Your task to perform on an android device: Show the shopping cart on costco. Search for "apple airpods pro" on costco, select the first entry, add it to the cart, then select checkout. Image 0: 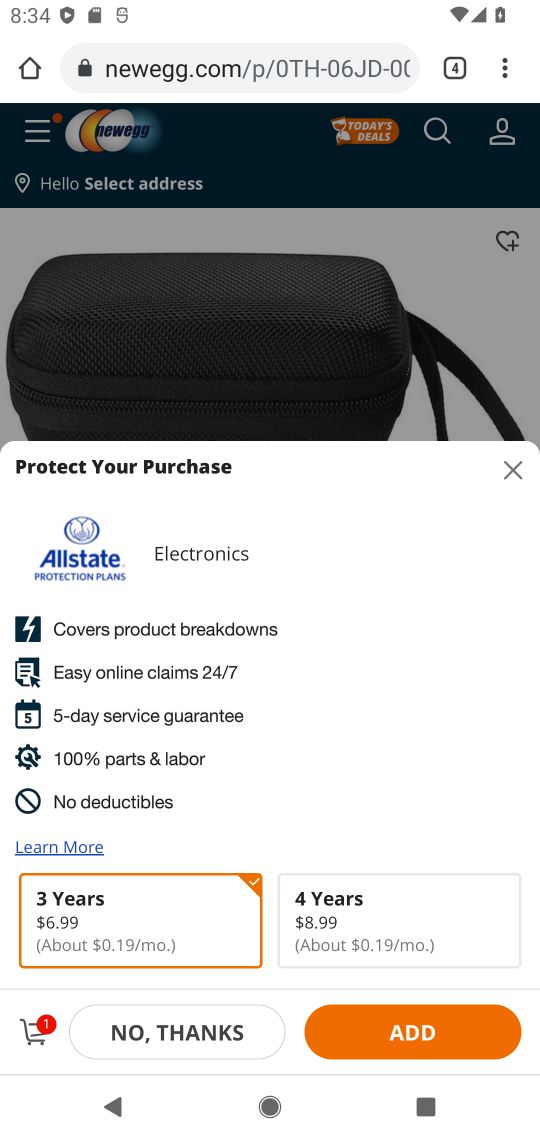
Step 0: press home button
Your task to perform on an android device: Show the shopping cart on costco. Search for "apple airpods pro" on costco, select the first entry, add it to the cart, then select checkout. Image 1: 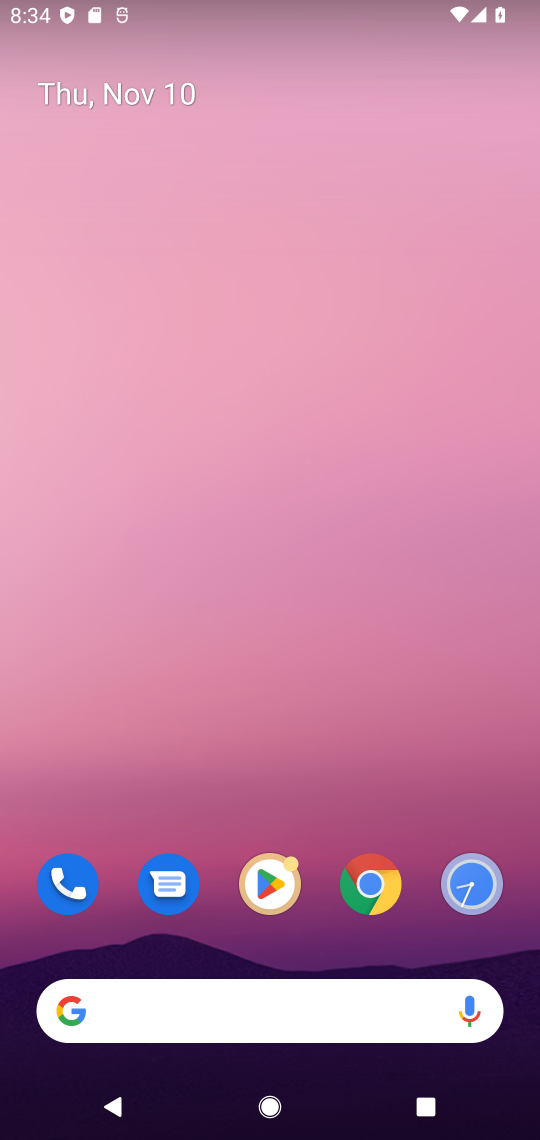
Step 1: click (253, 1004)
Your task to perform on an android device: Show the shopping cart on costco. Search for "apple airpods pro" on costco, select the first entry, add it to the cart, then select checkout. Image 2: 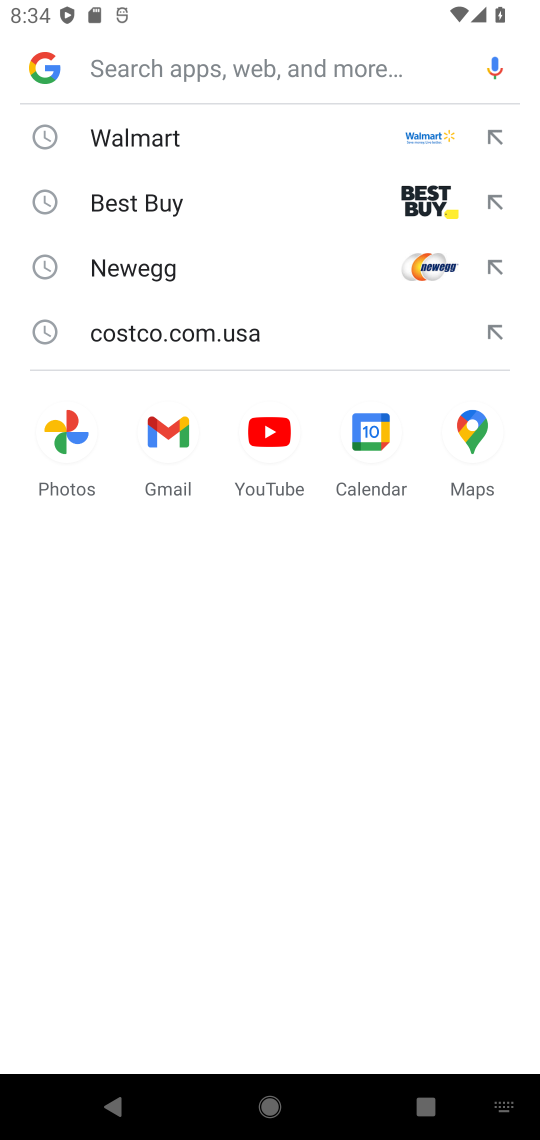
Step 2: type "costco"
Your task to perform on an android device: Show the shopping cart on costco. Search for "apple airpods pro" on costco, select the first entry, add it to the cart, then select checkout. Image 3: 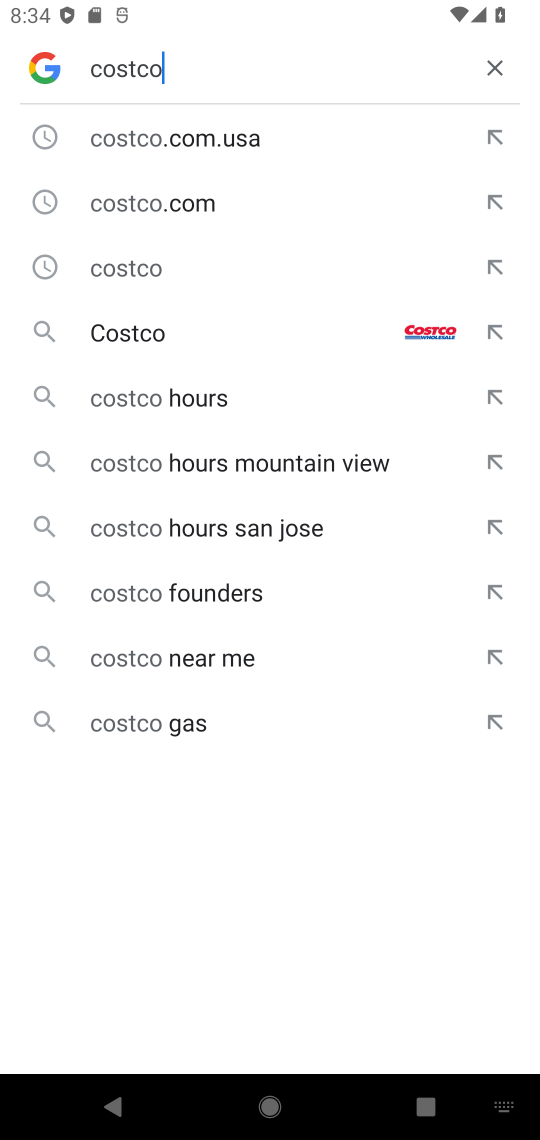
Step 3: click (142, 325)
Your task to perform on an android device: Show the shopping cart on costco. Search for "apple airpods pro" on costco, select the first entry, add it to the cart, then select checkout. Image 4: 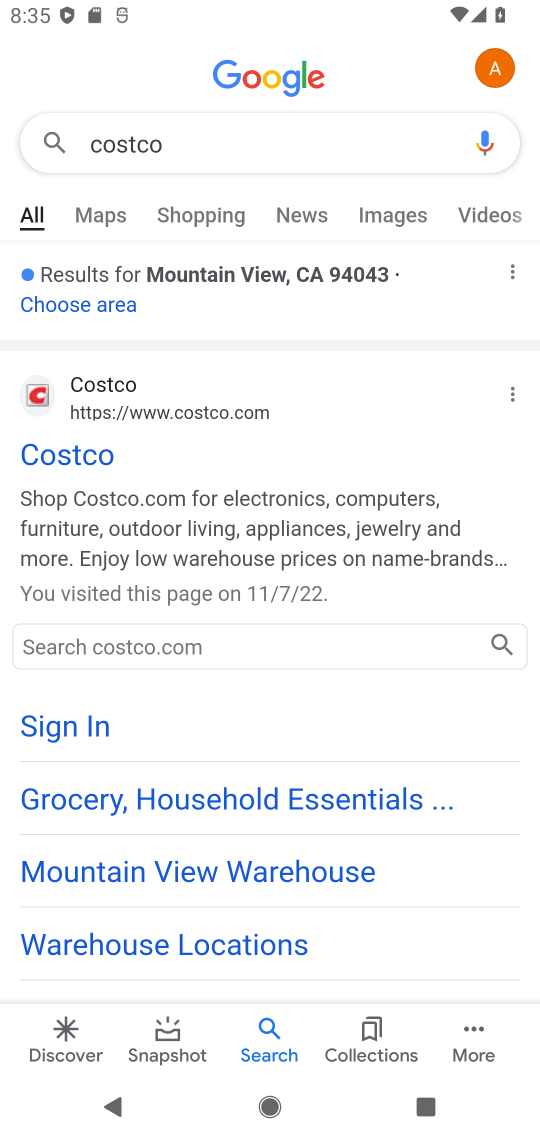
Step 4: click (88, 386)
Your task to perform on an android device: Show the shopping cart on costco. Search for "apple airpods pro" on costco, select the first entry, add it to the cart, then select checkout. Image 5: 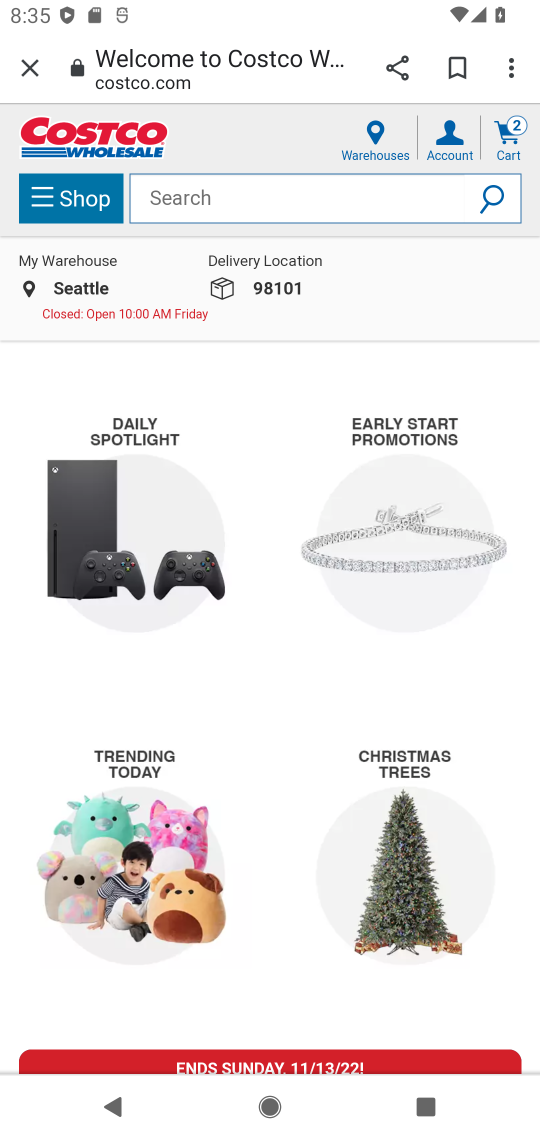
Step 5: click (290, 196)
Your task to perform on an android device: Show the shopping cart on costco. Search for "apple airpods pro" on costco, select the first entry, add it to the cart, then select checkout. Image 6: 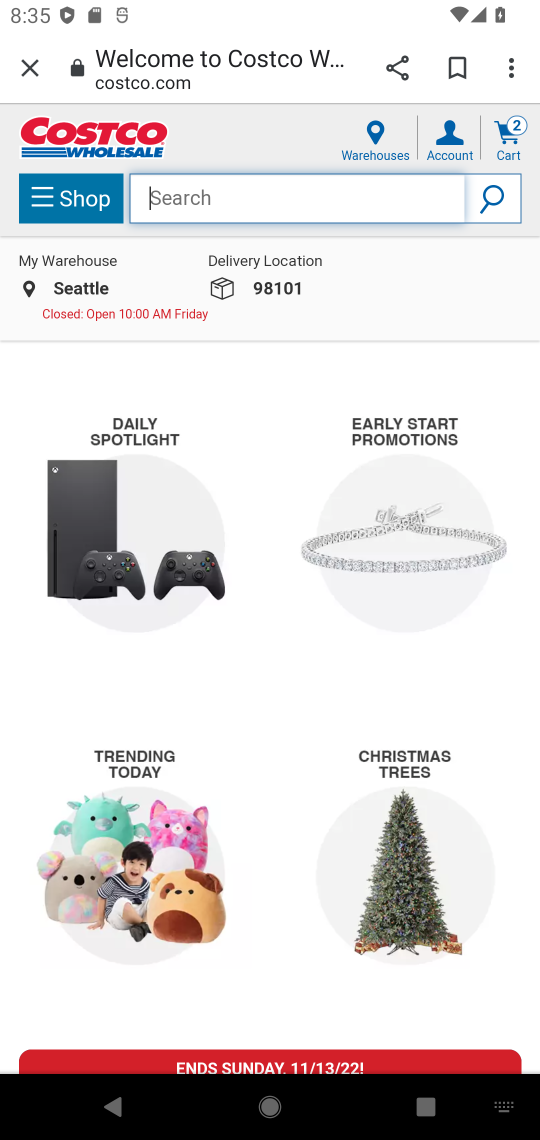
Step 6: type "apple airpods pro"
Your task to perform on an android device: Show the shopping cart on costco. Search for "apple airpods pro" on costco, select the first entry, add it to the cart, then select checkout. Image 7: 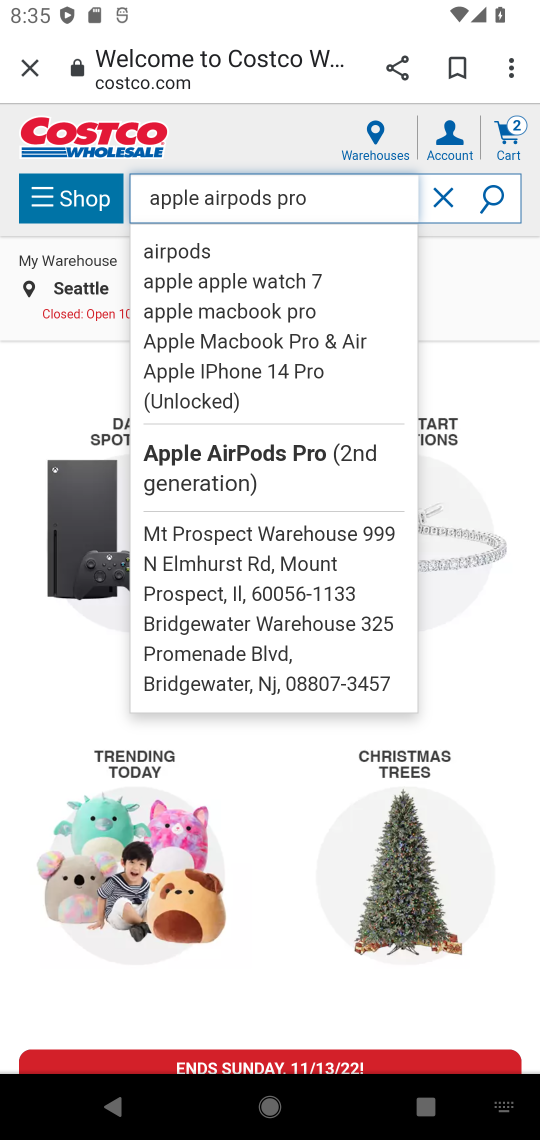
Step 7: click (247, 453)
Your task to perform on an android device: Show the shopping cart on costco. Search for "apple airpods pro" on costco, select the first entry, add it to the cart, then select checkout. Image 8: 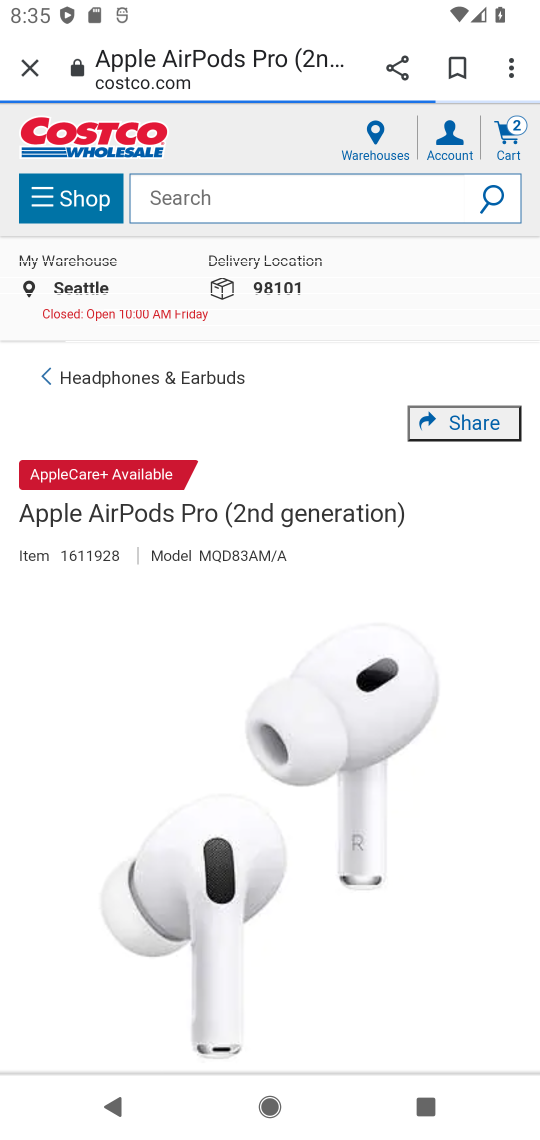
Step 8: drag from (274, 892) to (274, 665)
Your task to perform on an android device: Show the shopping cart on costco. Search for "apple airpods pro" on costco, select the first entry, add it to the cart, then select checkout. Image 9: 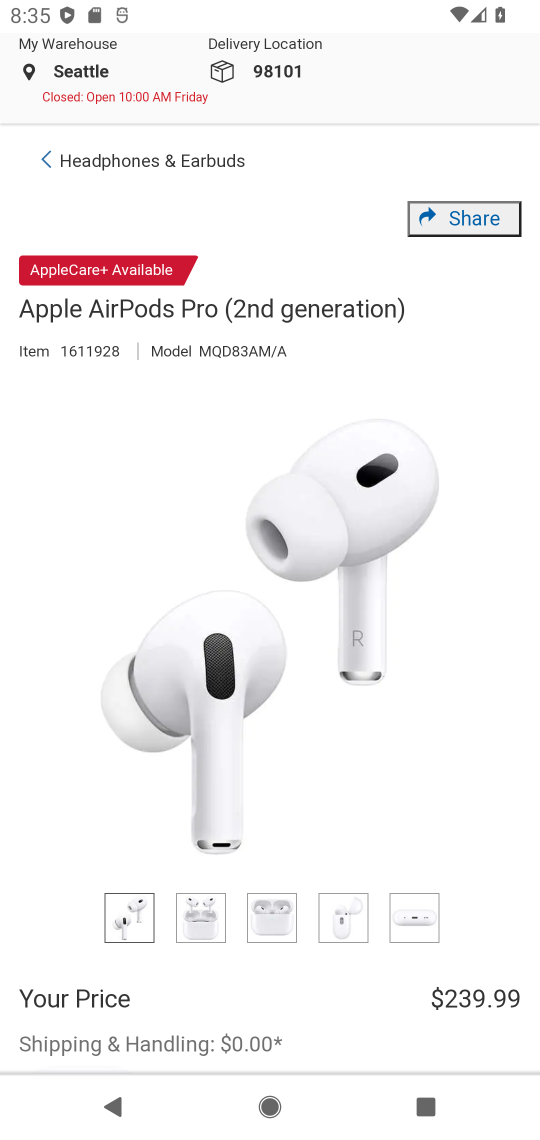
Step 9: drag from (237, 830) to (238, 522)
Your task to perform on an android device: Show the shopping cart on costco. Search for "apple airpods pro" on costco, select the first entry, add it to the cart, then select checkout. Image 10: 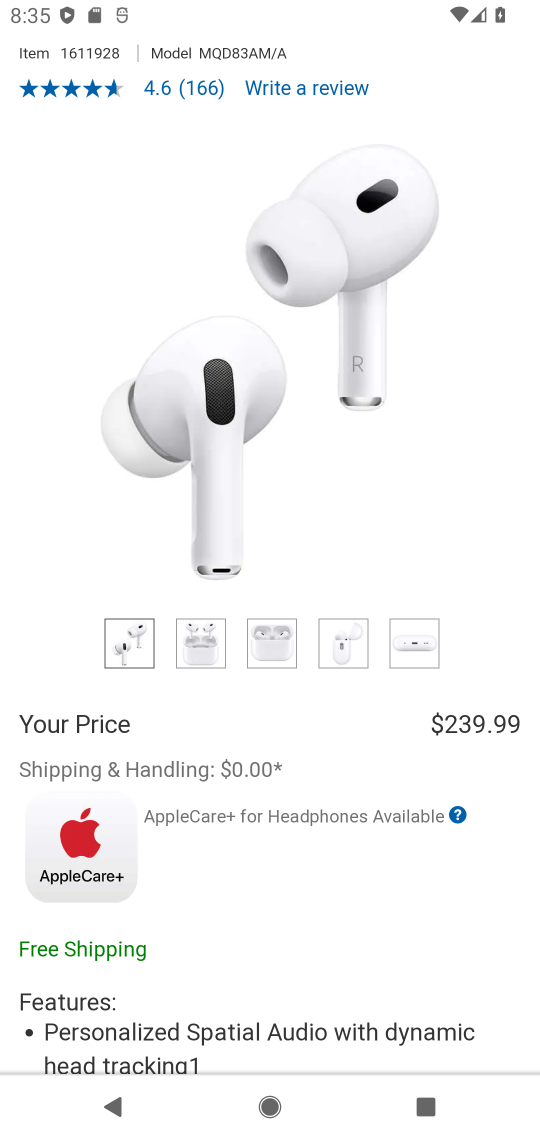
Step 10: click (263, 553)
Your task to perform on an android device: Show the shopping cart on costco. Search for "apple airpods pro" on costco, select the first entry, add it to the cart, then select checkout. Image 11: 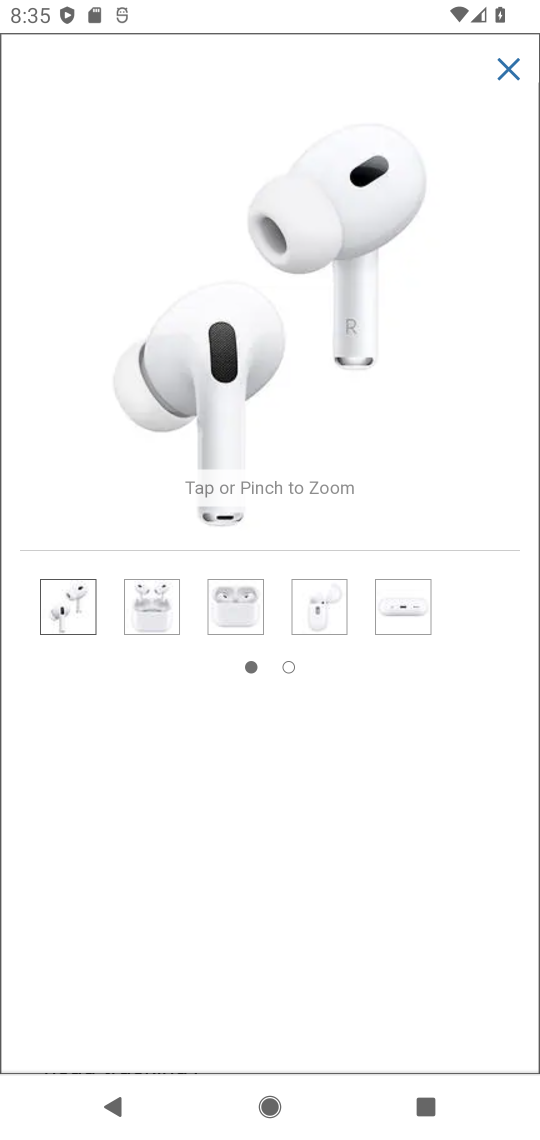
Step 11: click (513, 61)
Your task to perform on an android device: Show the shopping cart on costco. Search for "apple airpods pro" on costco, select the first entry, add it to the cart, then select checkout. Image 12: 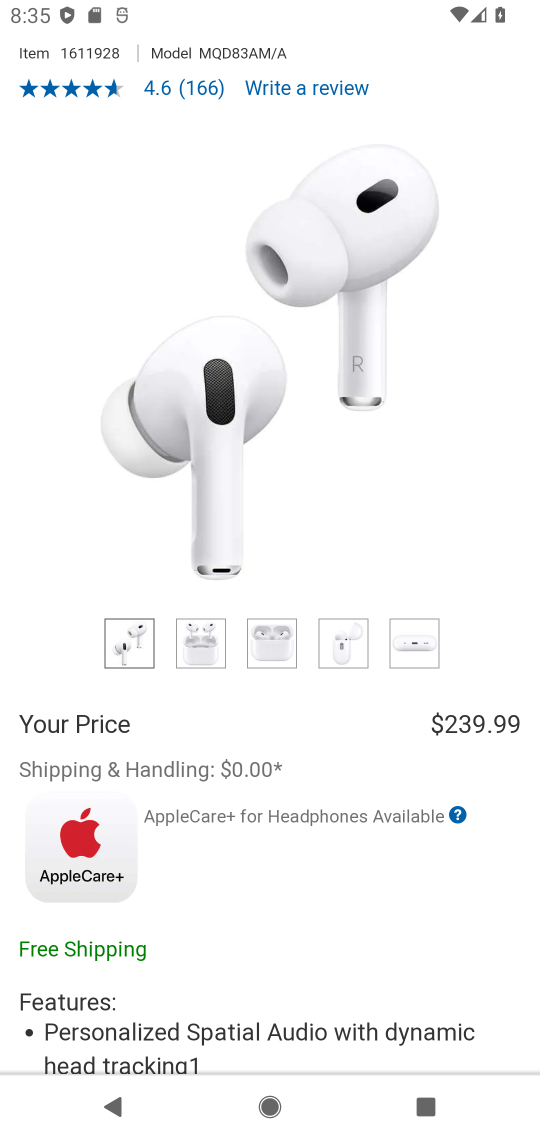
Step 12: drag from (276, 742) to (288, 530)
Your task to perform on an android device: Show the shopping cart on costco. Search for "apple airpods pro" on costco, select the first entry, add it to the cart, then select checkout. Image 13: 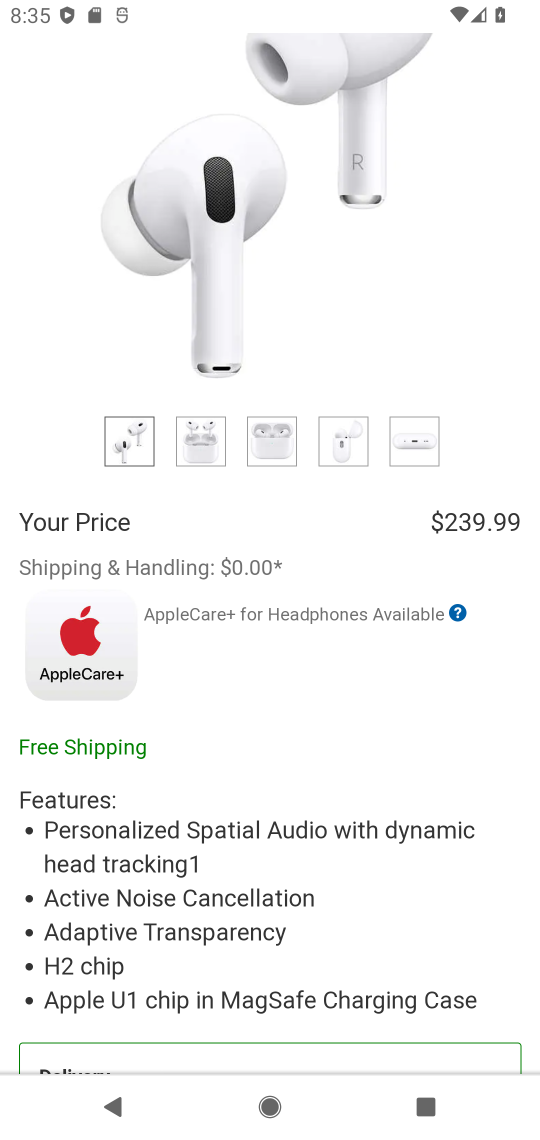
Step 13: drag from (358, 784) to (339, 587)
Your task to perform on an android device: Show the shopping cart on costco. Search for "apple airpods pro" on costco, select the first entry, add it to the cart, then select checkout. Image 14: 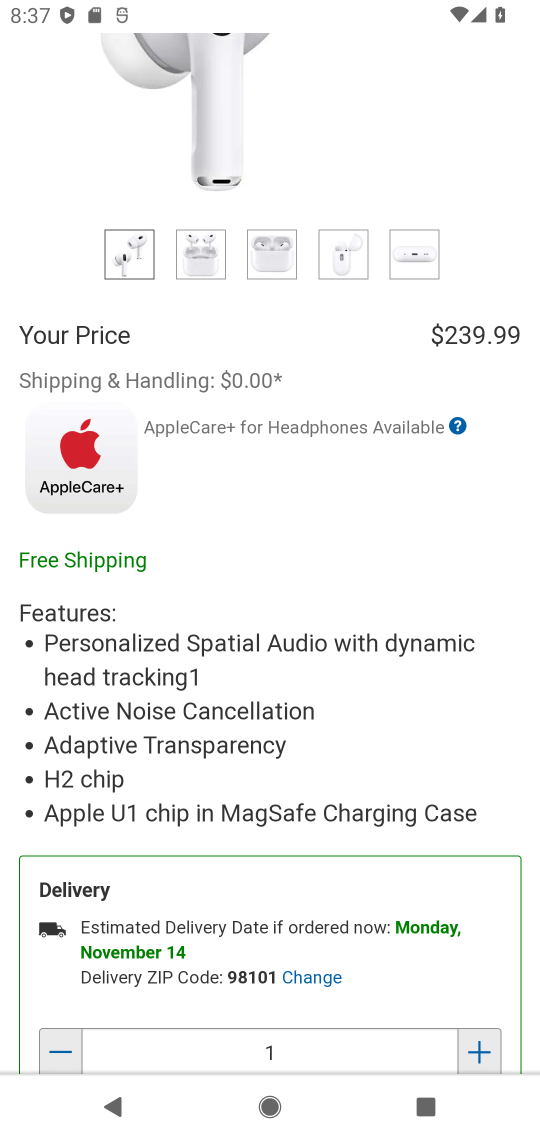
Step 14: drag from (372, 995) to (404, 636)
Your task to perform on an android device: Show the shopping cart on costco. Search for "apple airpods pro" on costco, select the first entry, add it to the cart, then select checkout. Image 15: 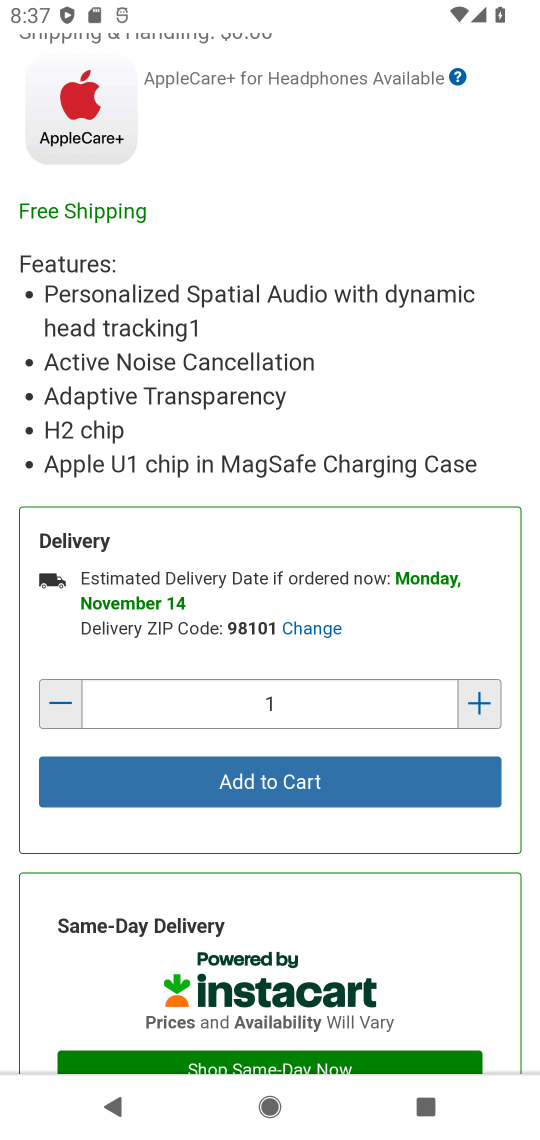
Step 15: click (290, 783)
Your task to perform on an android device: Show the shopping cart on costco. Search for "apple airpods pro" on costco, select the first entry, add it to the cart, then select checkout. Image 16: 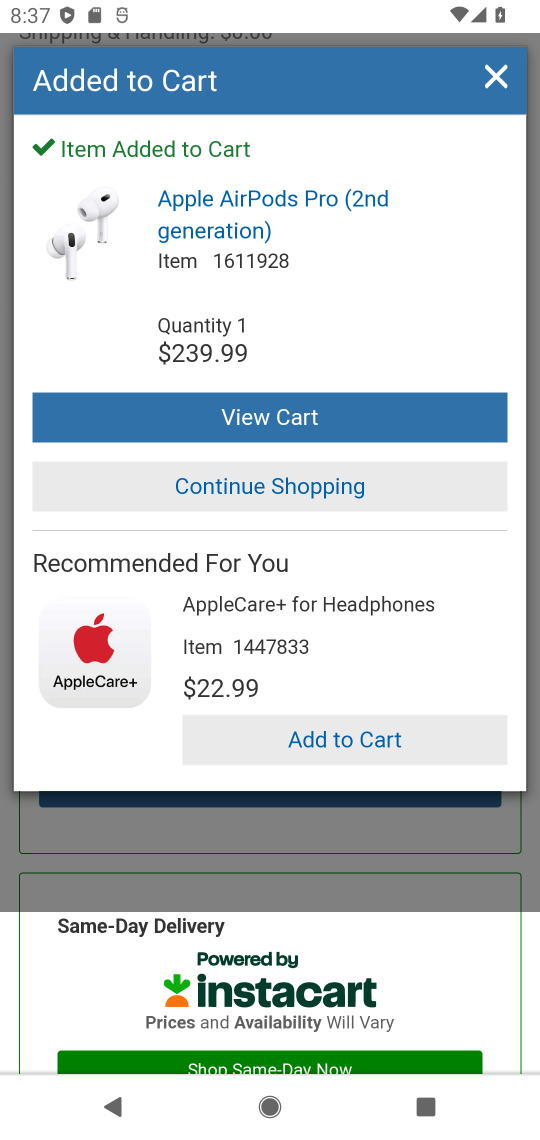
Step 16: drag from (384, 260) to (384, 802)
Your task to perform on an android device: Show the shopping cart on costco. Search for "apple airpods pro" on costco, select the first entry, add it to the cart, then select checkout. Image 17: 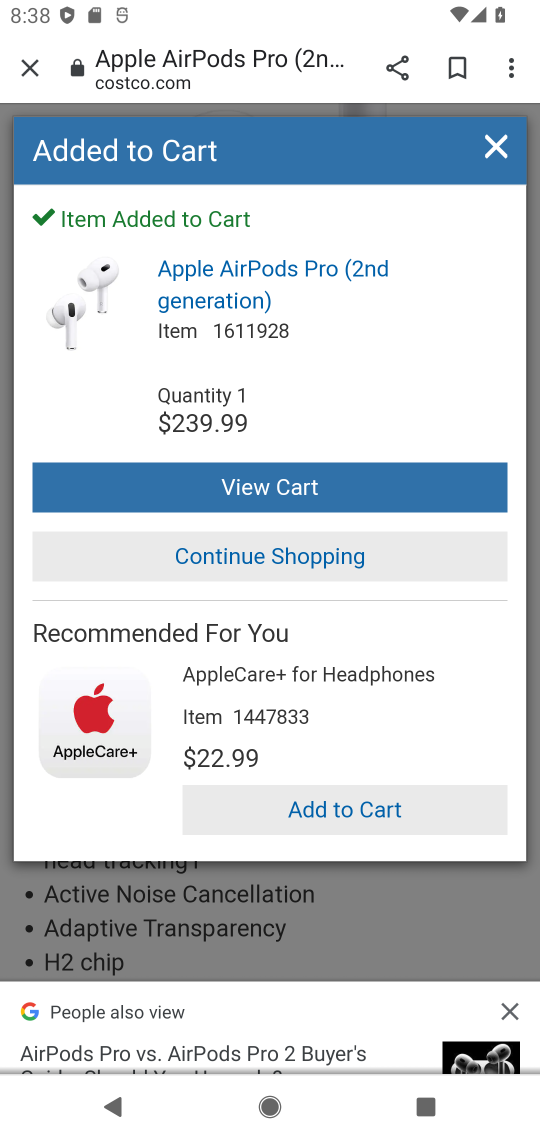
Step 17: click (290, 488)
Your task to perform on an android device: Show the shopping cart on costco. Search for "apple airpods pro" on costco, select the first entry, add it to the cart, then select checkout. Image 18: 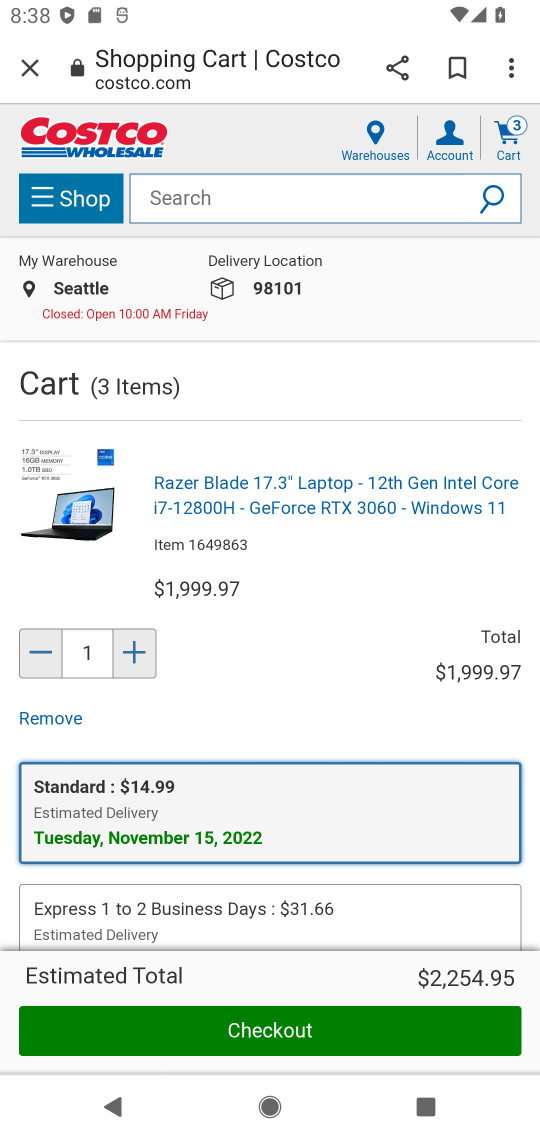
Step 18: click (514, 137)
Your task to perform on an android device: Show the shopping cart on costco. Search for "apple airpods pro" on costco, select the first entry, add it to the cart, then select checkout. Image 19: 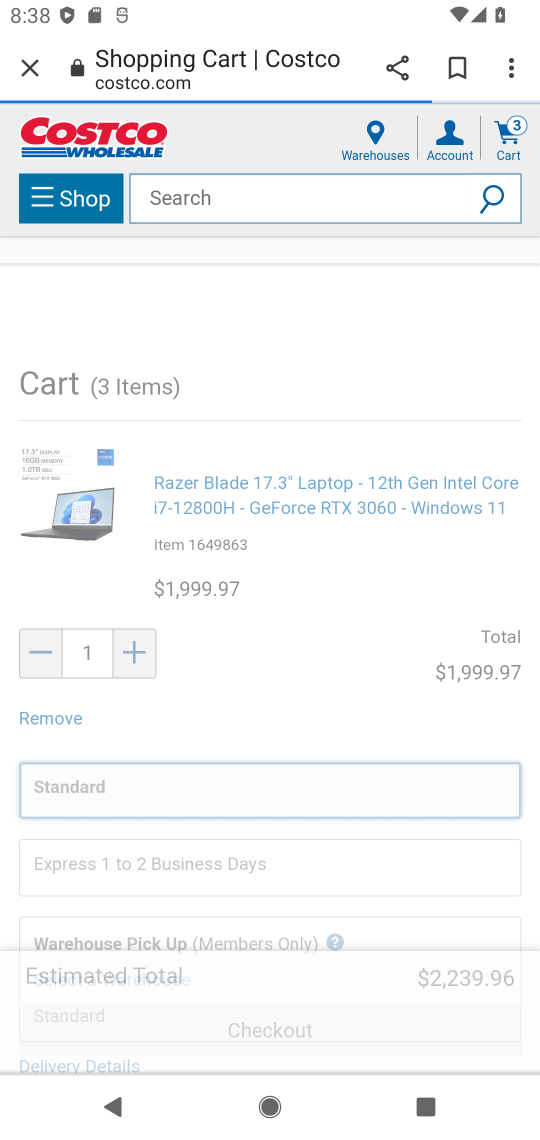
Step 19: click (264, 1032)
Your task to perform on an android device: Show the shopping cart on costco. Search for "apple airpods pro" on costco, select the first entry, add it to the cart, then select checkout. Image 20: 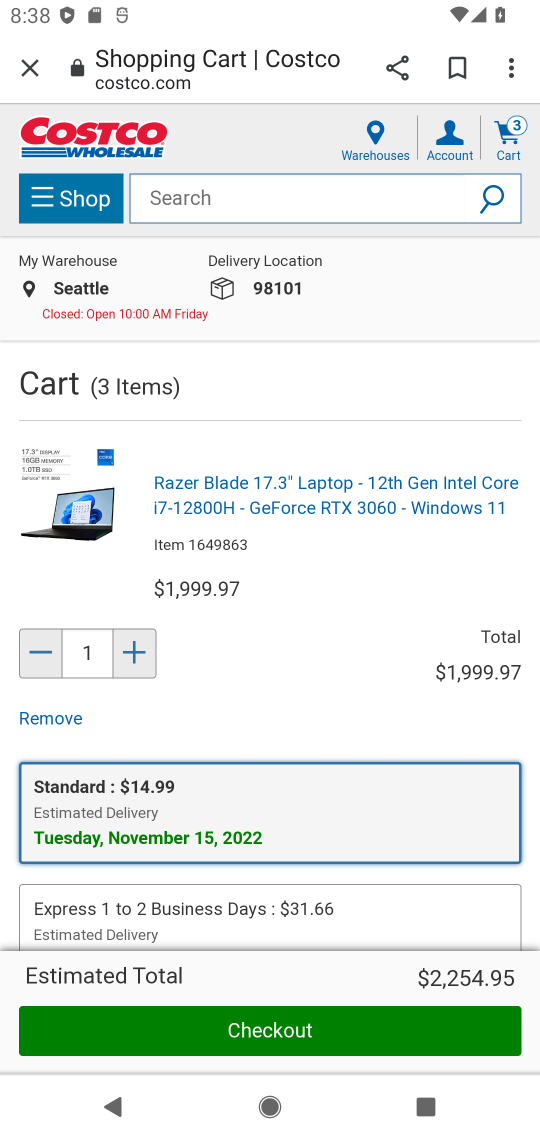
Step 20: click (264, 1032)
Your task to perform on an android device: Show the shopping cart on costco. Search for "apple airpods pro" on costco, select the first entry, add it to the cart, then select checkout. Image 21: 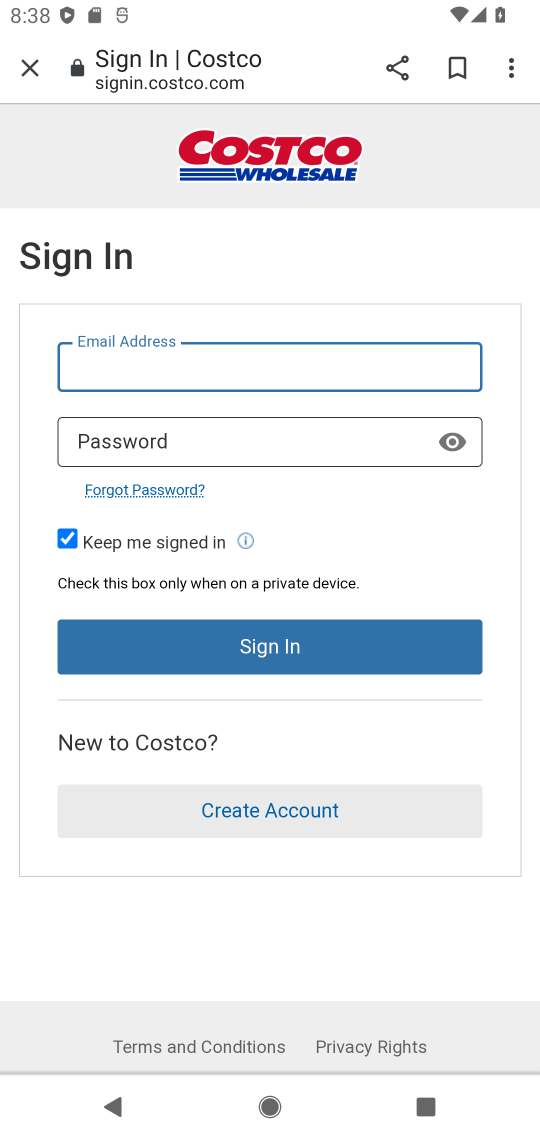
Step 21: task complete